Your task to perform on an android device: search for starred emails in the gmail app Image 0: 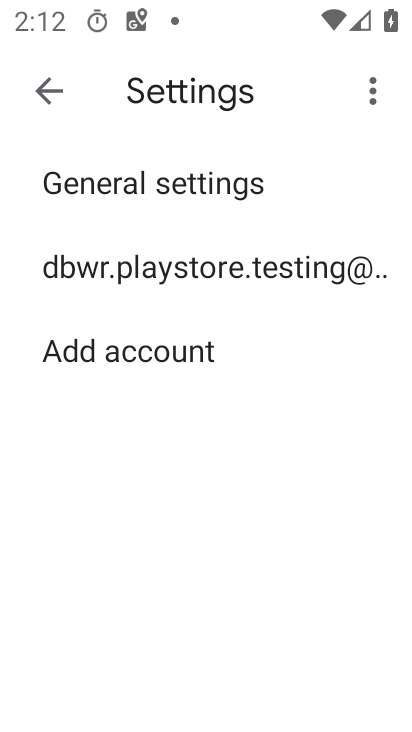
Step 0: press home button
Your task to perform on an android device: search for starred emails in the gmail app Image 1: 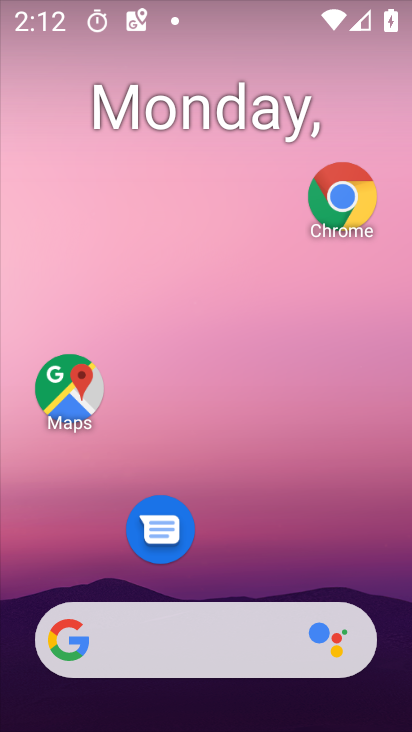
Step 1: drag from (239, 614) to (297, 13)
Your task to perform on an android device: search for starred emails in the gmail app Image 2: 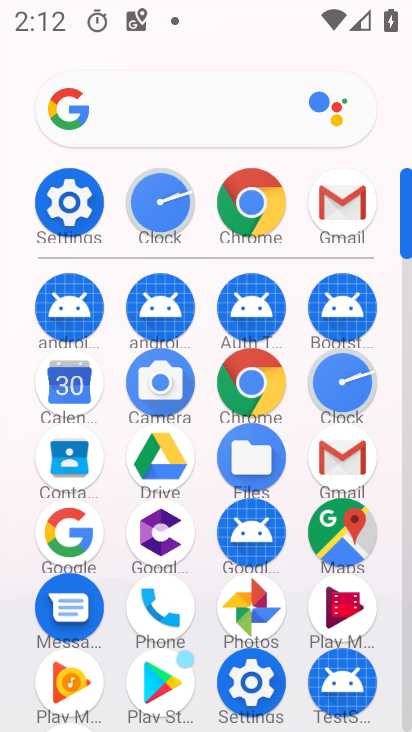
Step 2: click (339, 443)
Your task to perform on an android device: search for starred emails in the gmail app Image 3: 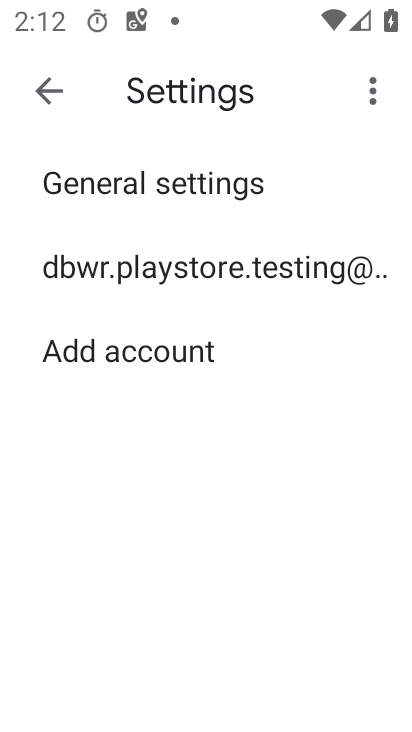
Step 3: click (58, 85)
Your task to perform on an android device: search for starred emails in the gmail app Image 4: 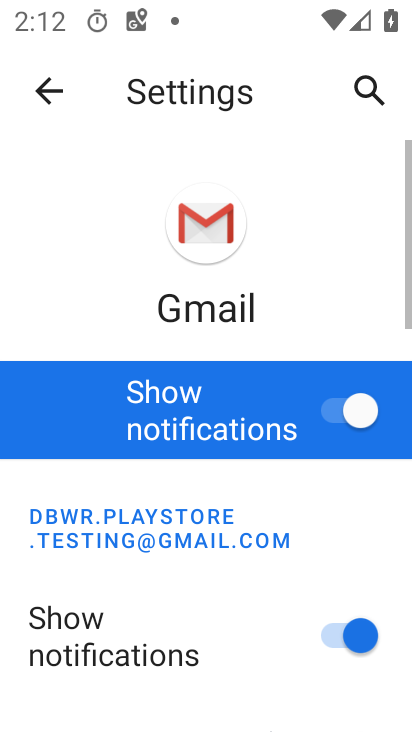
Step 4: click (57, 85)
Your task to perform on an android device: search for starred emails in the gmail app Image 5: 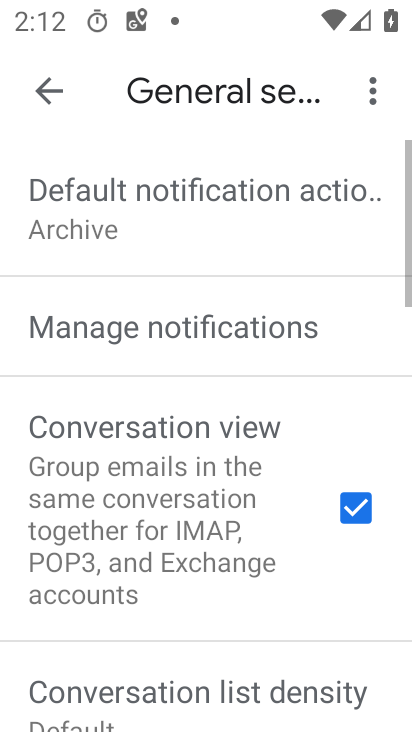
Step 5: click (57, 85)
Your task to perform on an android device: search for starred emails in the gmail app Image 6: 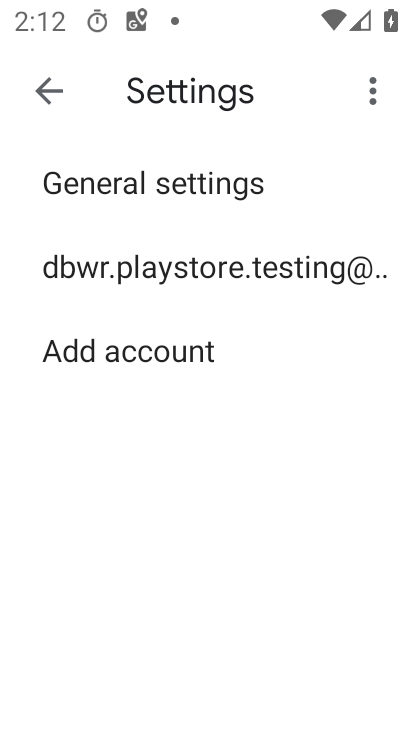
Step 6: click (57, 85)
Your task to perform on an android device: search for starred emails in the gmail app Image 7: 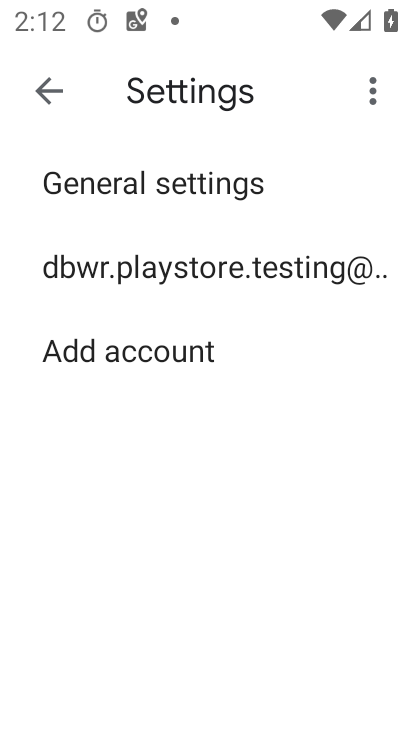
Step 7: click (55, 85)
Your task to perform on an android device: search for starred emails in the gmail app Image 8: 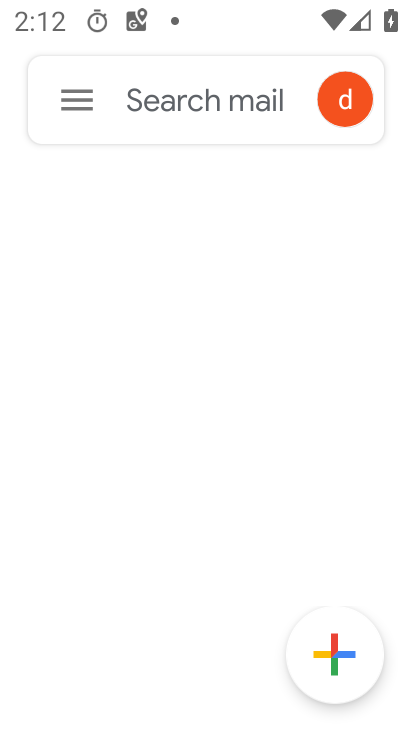
Step 8: click (55, 85)
Your task to perform on an android device: search for starred emails in the gmail app Image 9: 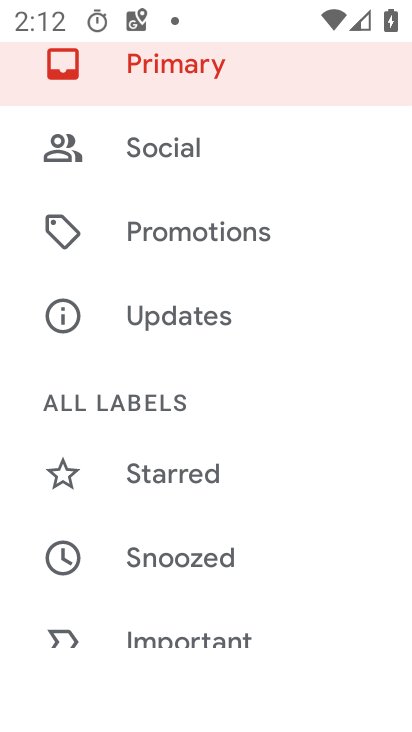
Step 9: click (191, 479)
Your task to perform on an android device: search for starred emails in the gmail app Image 10: 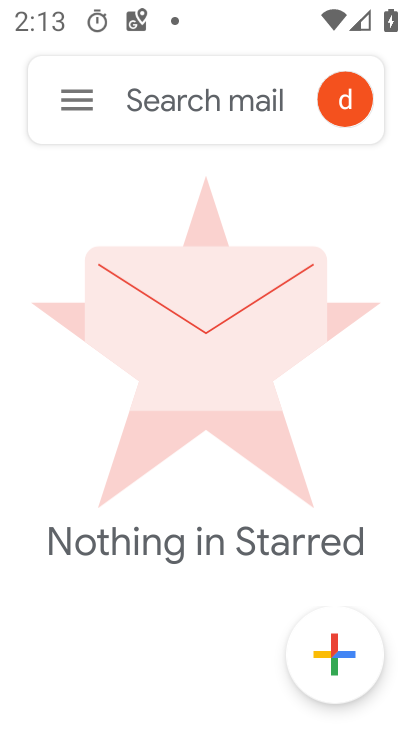
Step 10: task complete